Your task to perform on an android device: toggle improve location accuracy Image 0: 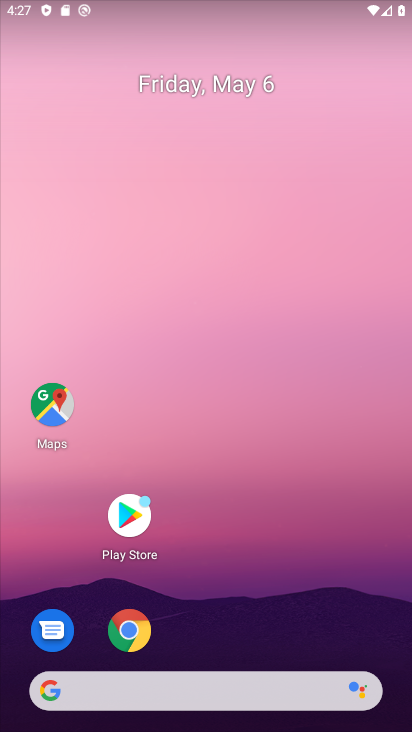
Step 0: drag from (258, 676) to (265, 32)
Your task to perform on an android device: toggle improve location accuracy Image 1: 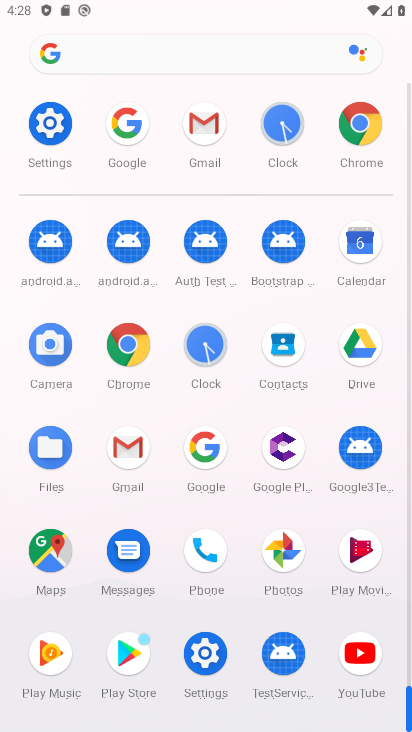
Step 1: click (69, 150)
Your task to perform on an android device: toggle improve location accuracy Image 2: 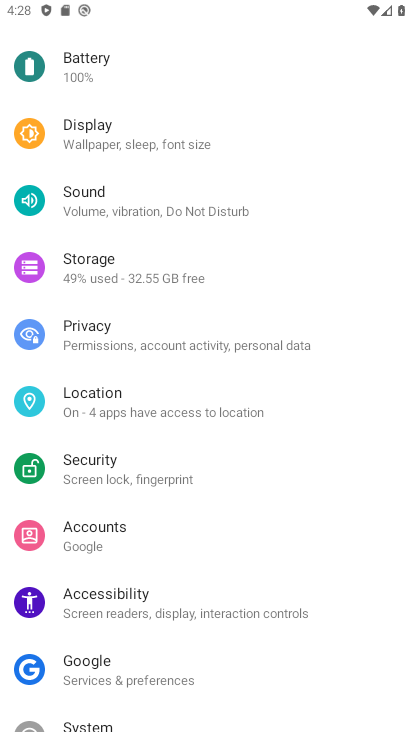
Step 2: drag from (224, 304) to (137, 576)
Your task to perform on an android device: toggle improve location accuracy Image 3: 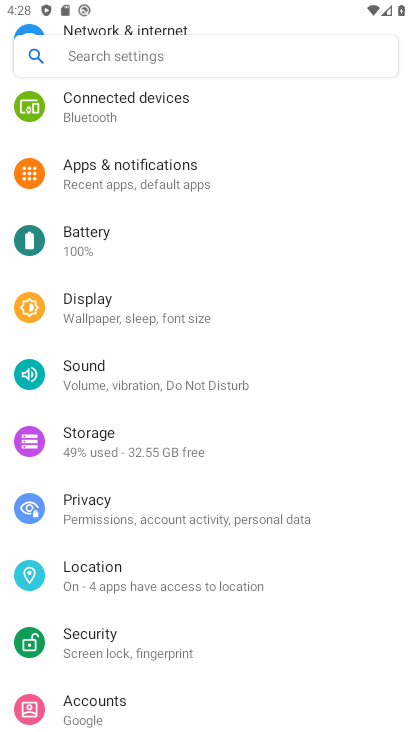
Step 3: click (201, 581)
Your task to perform on an android device: toggle improve location accuracy Image 4: 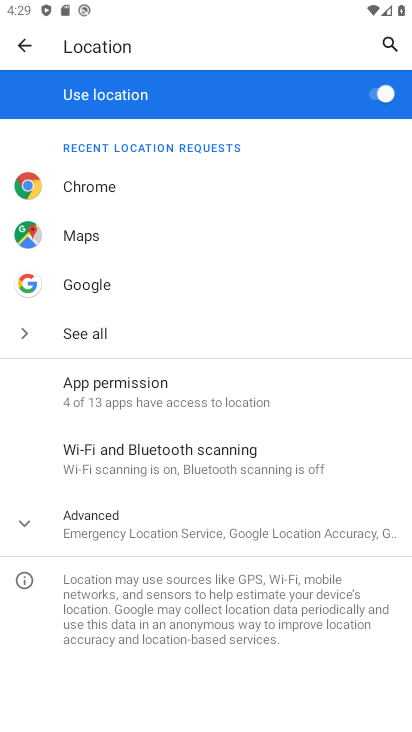
Step 4: click (148, 524)
Your task to perform on an android device: toggle improve location accuracy Image 5: 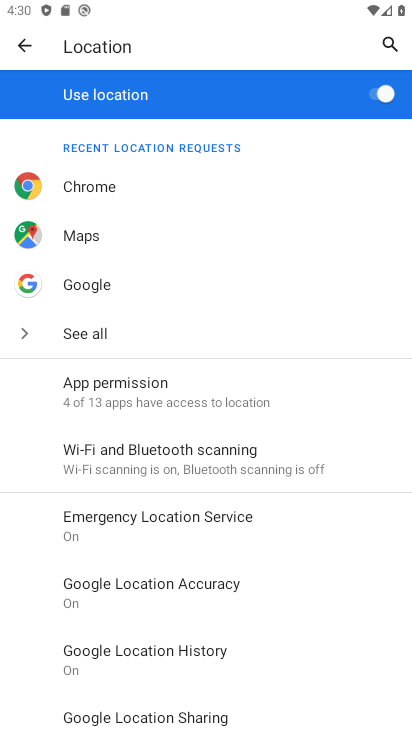
Step 5: drag from (244, 570) to (233, 388)
Your task to perform on an android device: toggle improve location accuracy Image 6: 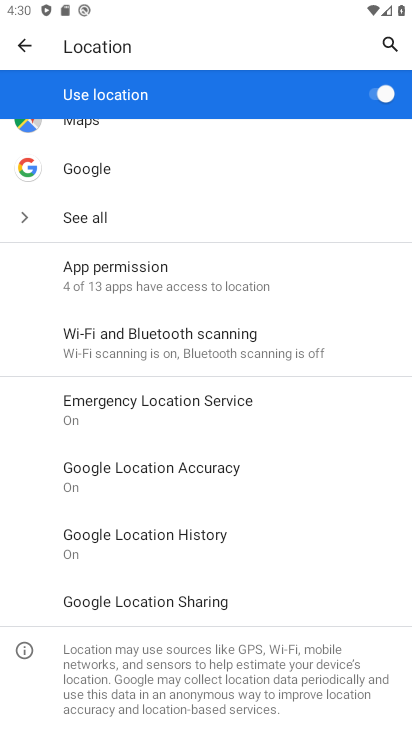
Step 6: drag from (255, 522) to (249, 396)
Your task to perform on an android device: toggle improve location accuracy Image 7: 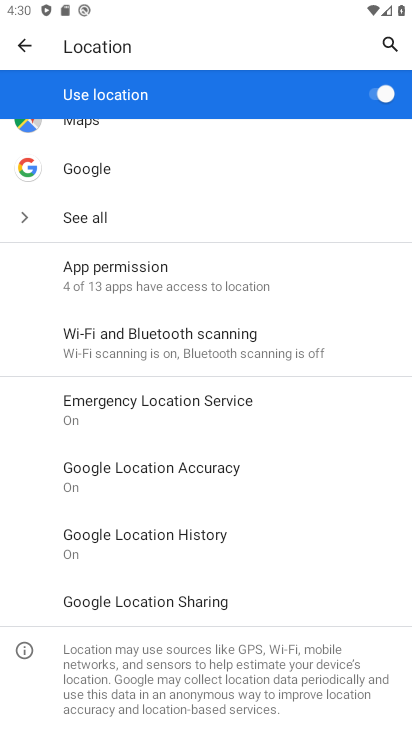
Step 7: click (259, 468)
Your task to perform on an android device: toggle improve location accuracy Image 8: 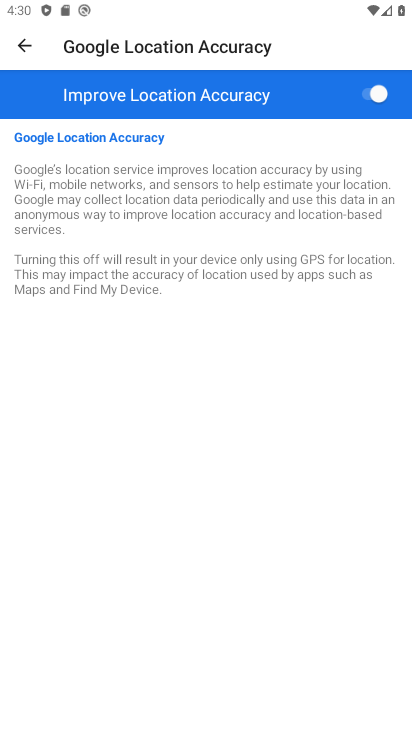
Step 8: click (355, 101)
Your task to perform on an android device: toggle improve location accuracy Image 9: 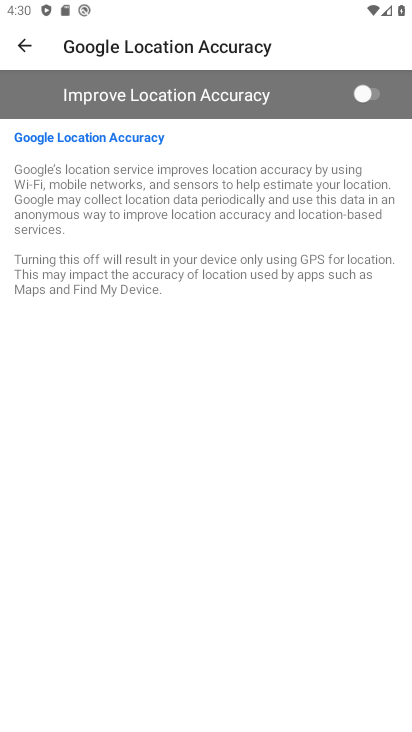
Step 9: task complete